Your task to perform on an android device: Is it going to rain tomorrow? Image 0: 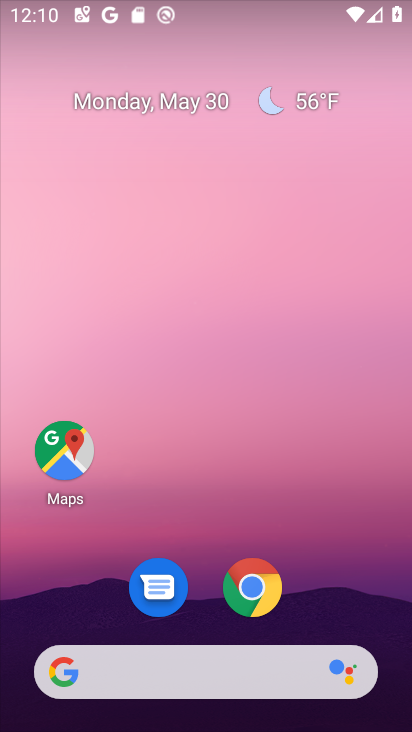
Step 0: click (364, 626)
Your task to perform on an android device: Is it going to rain tomorrow? Image 1: 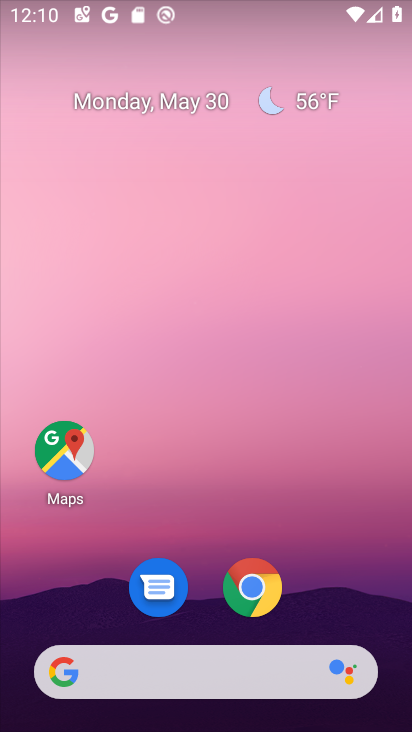
Step 1: click (257, 582)
Your task to perform on an android device: Is it going to rain tomorrow? Image 2: 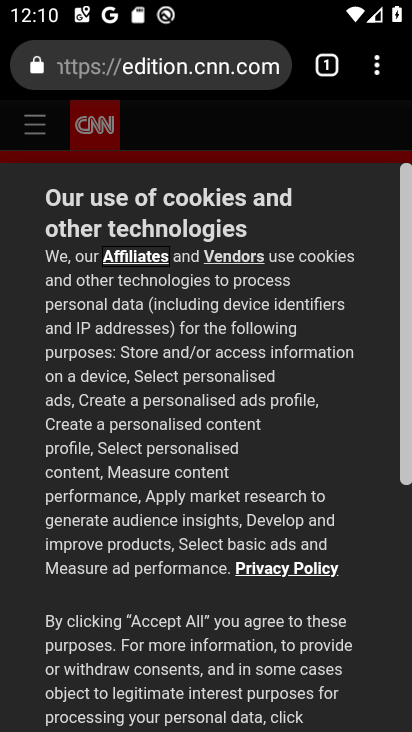
Step 2: click (223, 64)
Your task to perform on an android device: Is it going to rain tomorrow? Image 3: 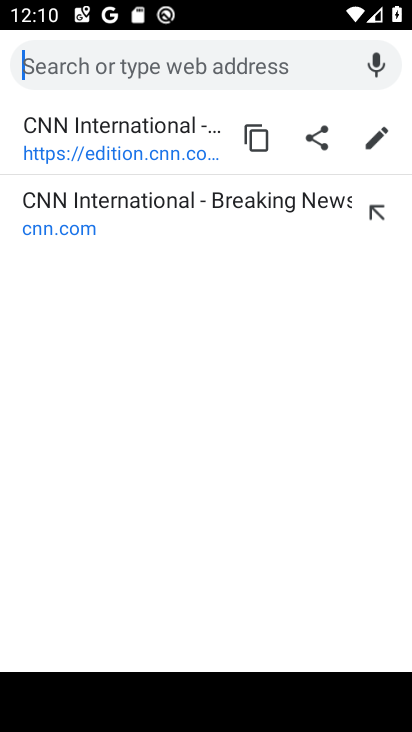
Step 3: type "Is it going to rain tomorrow?"
Your task to perform on an android device: Is it going to rain tomorrow? Image 4: 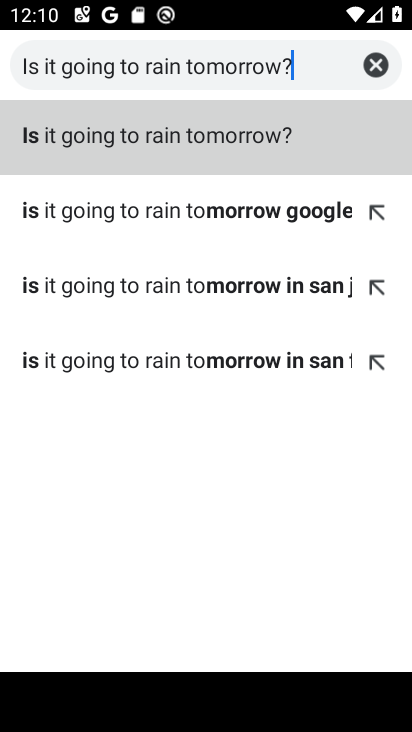
Step 4: click (229, 134)
Your task to perform on an android device: Is it going to rain tomorrow? Image 5: 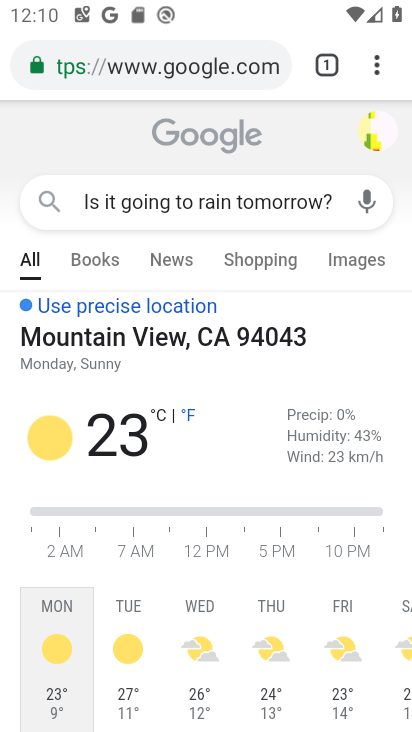
Step 5: click (126, 612)
Your task to perform on an android device: Is it going to rain tomorrow? Image 6: 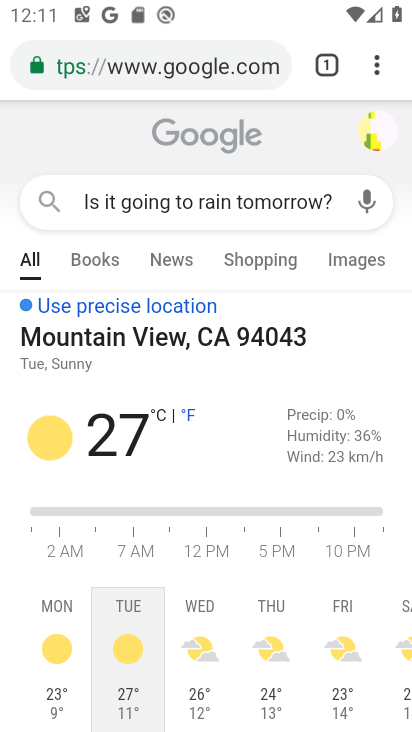
Step 6: task complete